Your task to perform on an android device: install app "Truecaller" Image 0: 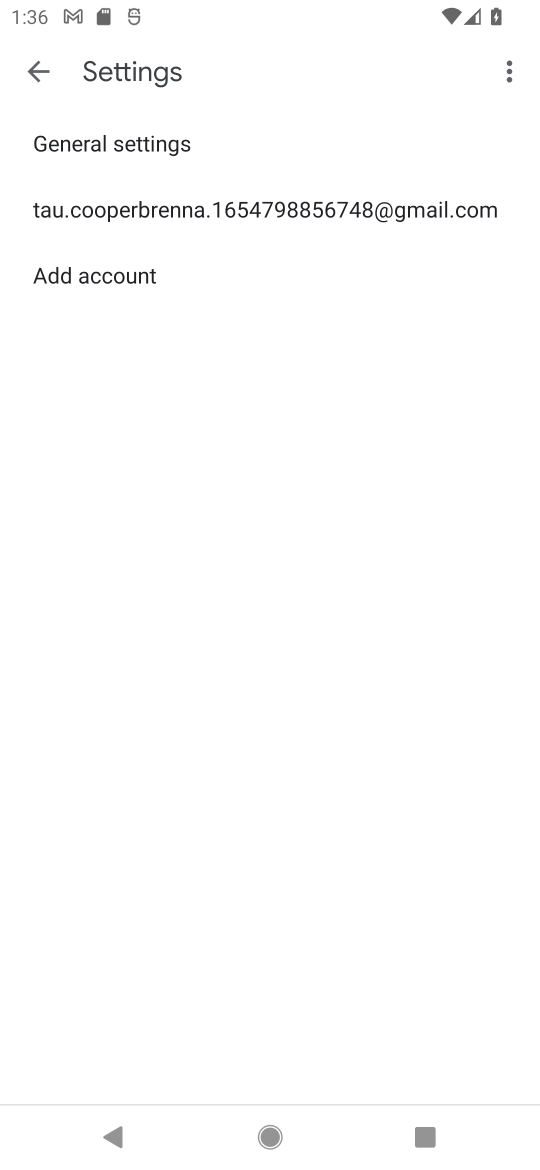
Step 0: press home button
Your task to perform on an android device: install app "Truecaller" Image 1: 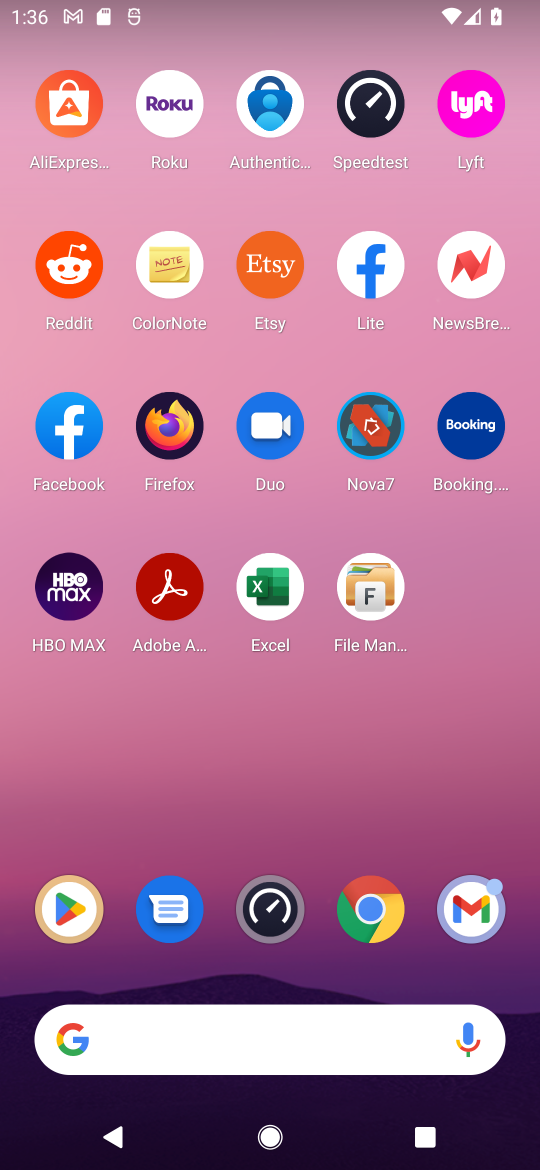
Step 1: click (56, 916)
Your task to perform on an android device: install app "Truecaller" Image 2: 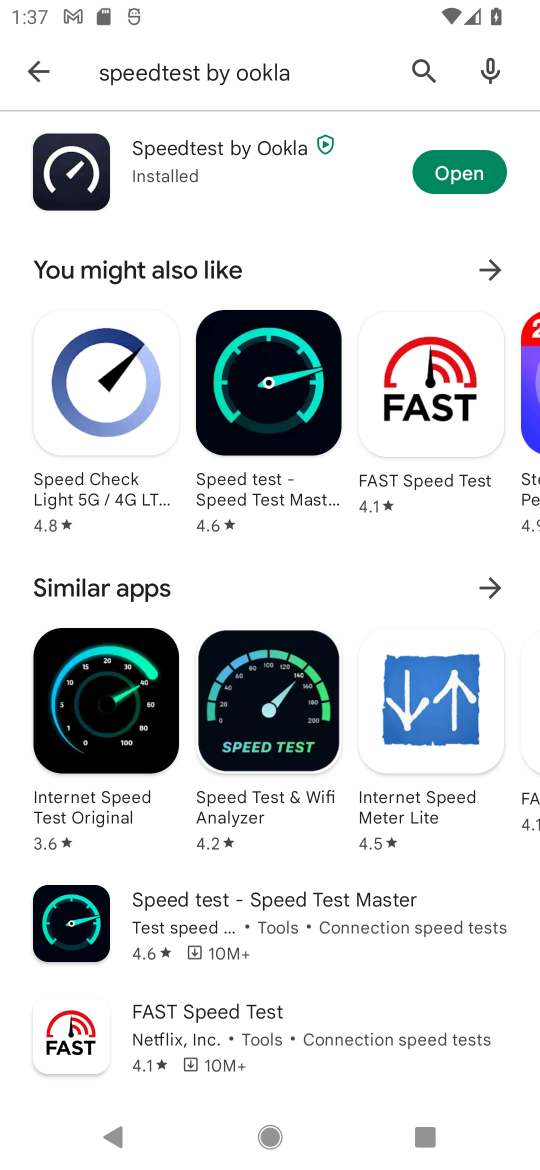
Step 2: click (420, 73)
Your task to perform on an android device: install app "Truecaller" Image 3: 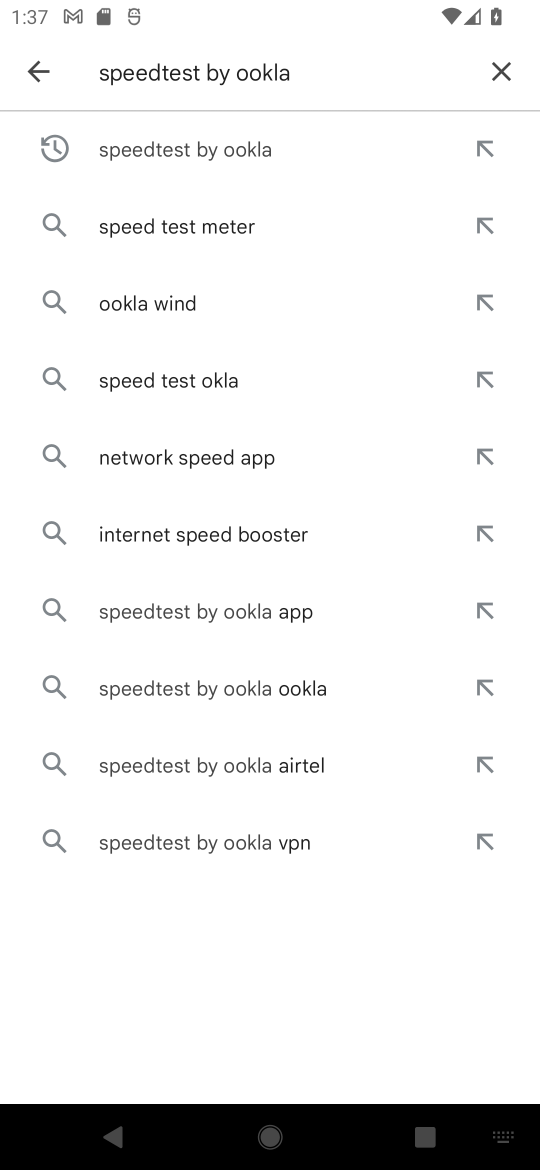
Step 3: click (512, 65)
Your task to perform on an android device: install app "Truecaller" Image 4: 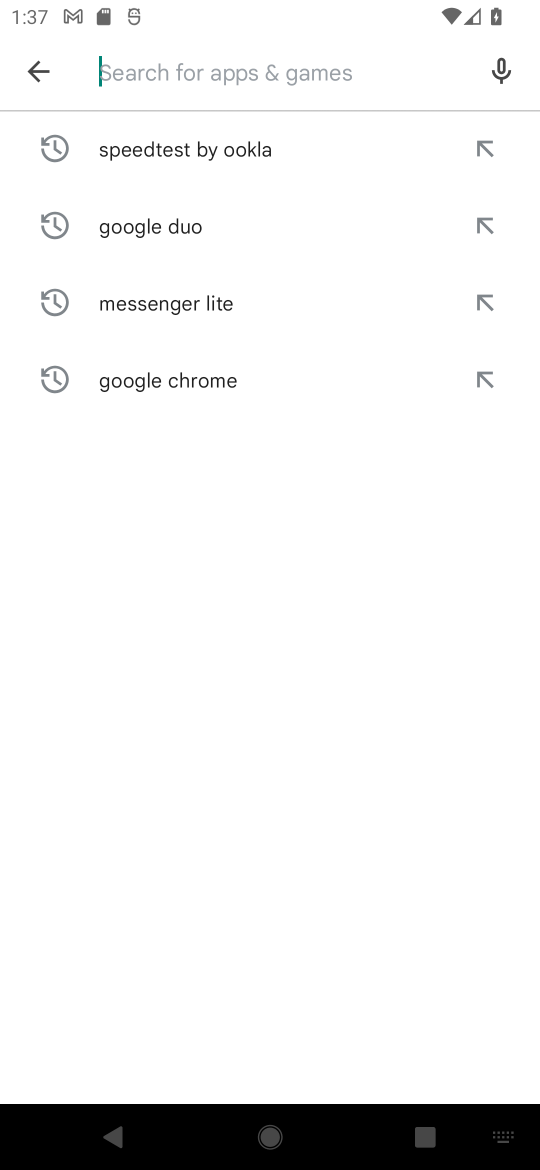
Step 4: type "Truecaller"
Your task to perform on an android device: install app "Truecaller" Image 5: 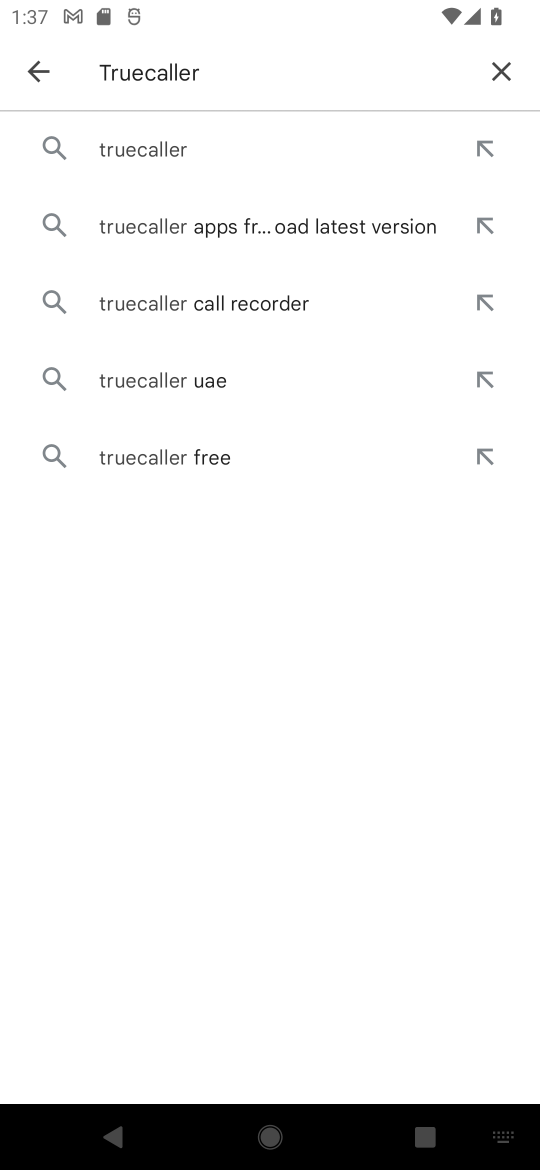
Step 5: click (165, 146)
Your task to perform on an android device: install app "Truecaller" Image 6: 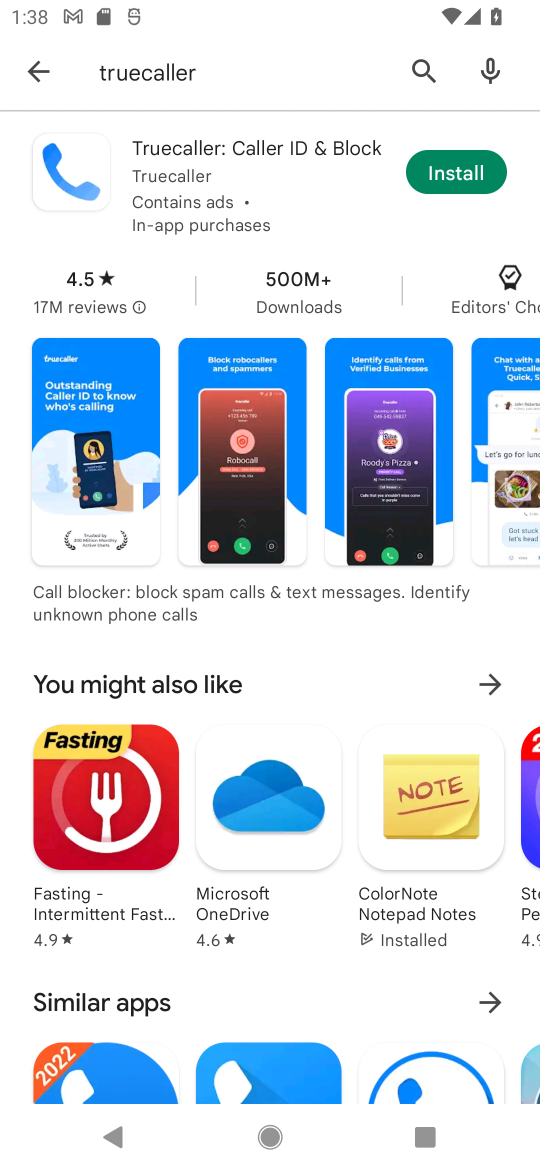
Step 6: click (452, 175)
Your task to perform on an android device: install app "Truecaller" Image 7: 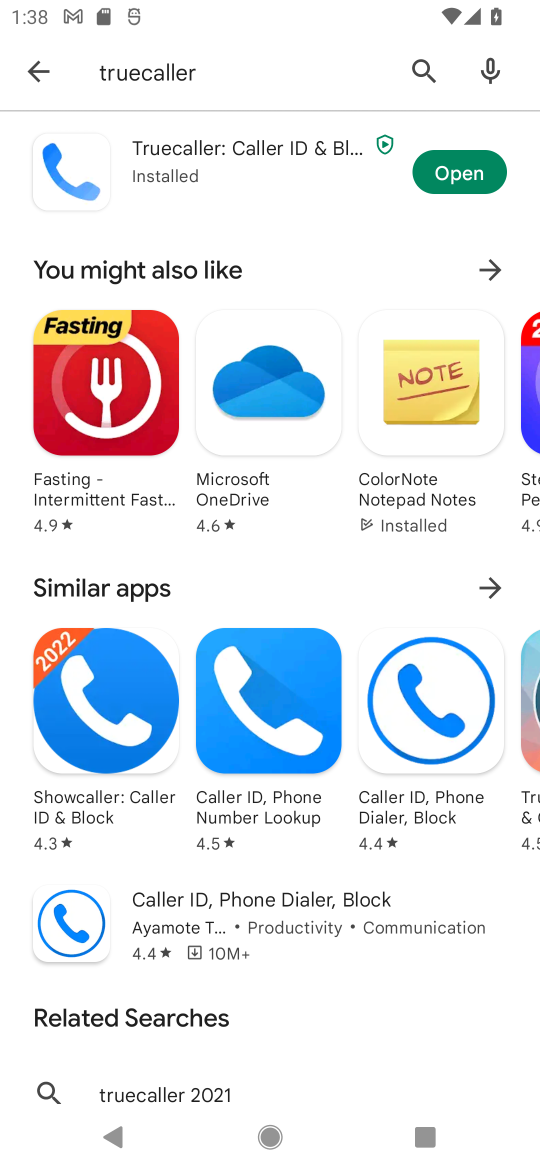
Step 7: click (259, 150)
Your task to perform on an android device: install app "Truecaller" Image 8: 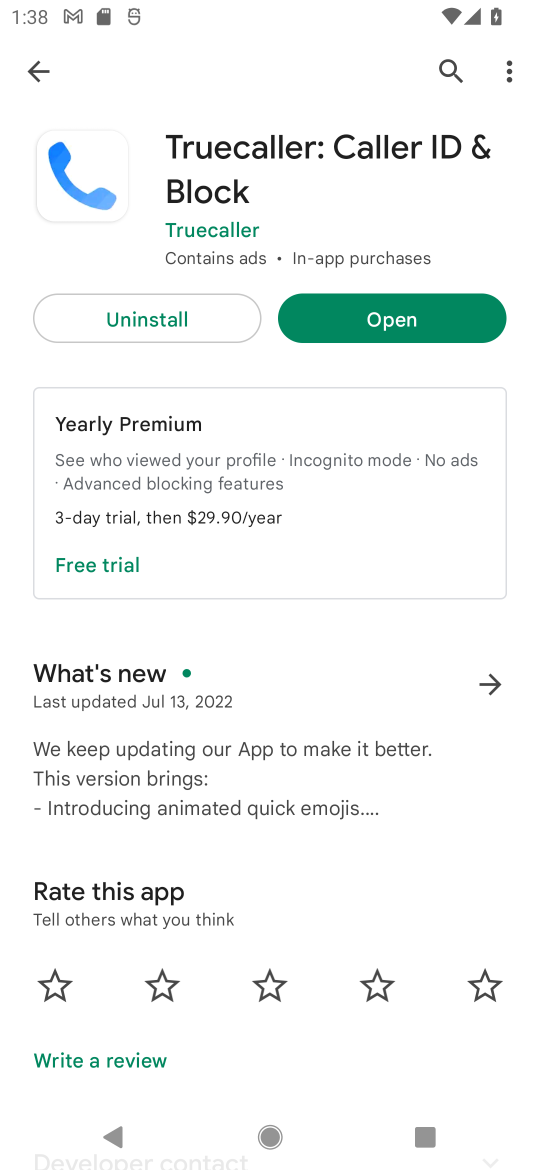
Step 8: task complete